Your task to perform on an android device: Open battery settings Image 0: 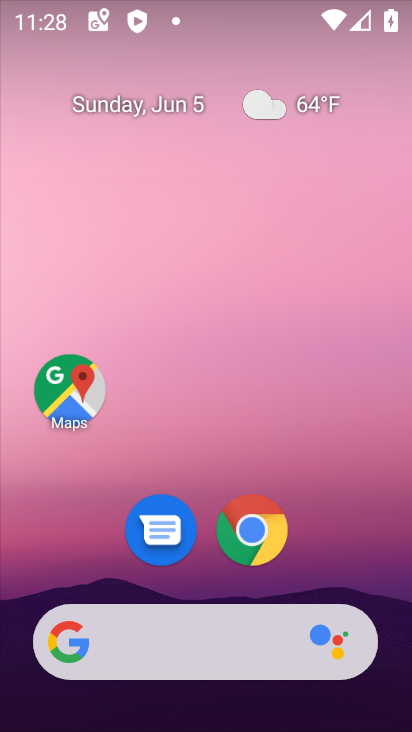
Step 0: drag from (327, 438) to (408, 432)
Your task to perform on an android device: Open battery settings Image 1: 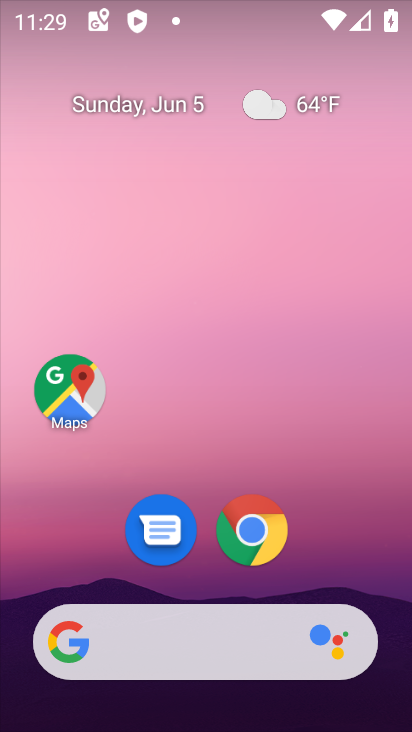
Step 1: drag from (370, 519) to (359, 30)
Your task to perform on an android device: Open battery settings Image 2: 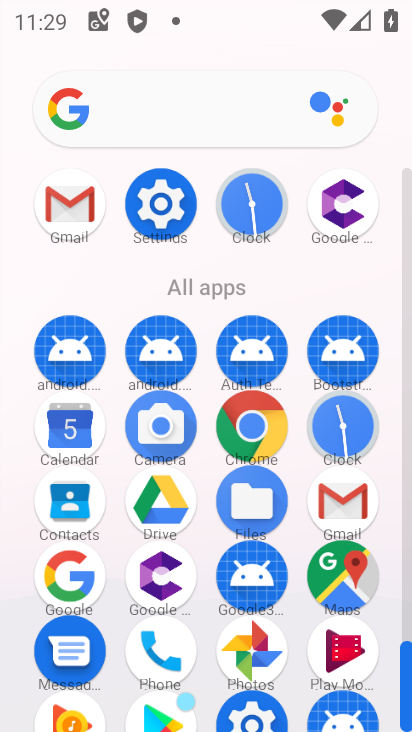
Step 2: click (170, 201)
Your task to perform on an android device: Open battery settings Image 3: 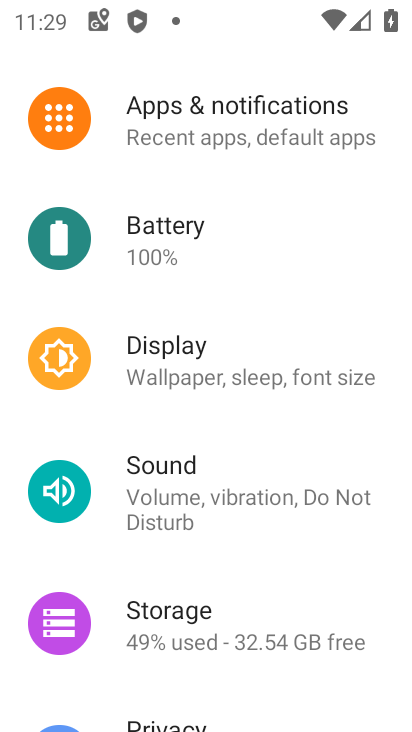
Step 3: click (177, 255)
Your task to perform on an android device: Open battery settings Image 4: 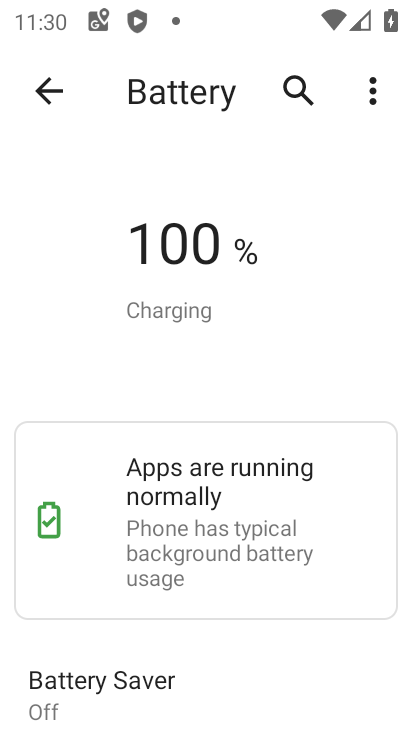
Step 4: task complete